Your task to perform on an android device: toggle javascript in the chrome app Image 0: 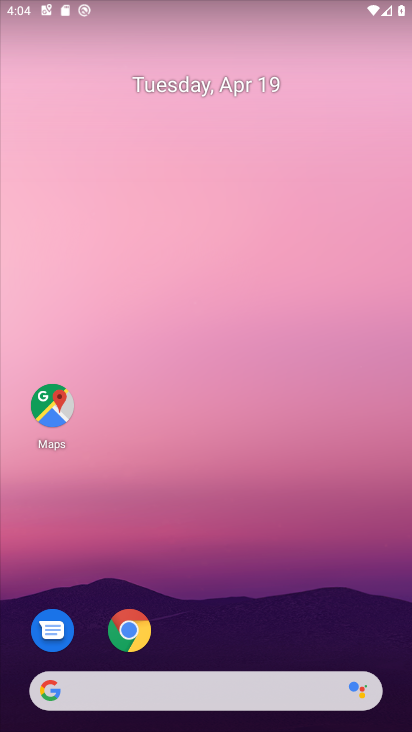
Step 0: click (131, 634)
Your task to perform on an android device: toggle javascript in the chrome app Image 1: 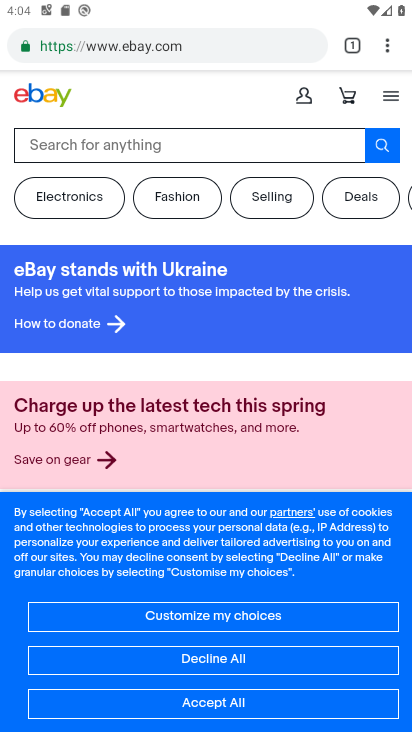
Step 1: drag from (389, 41) to (238, 601)
Your task to perform on an android device: toggle javascript in the chrome app Image 2: 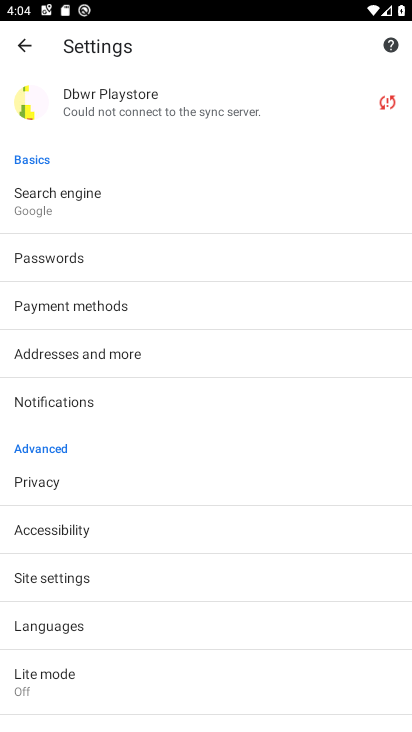
Step 2: drag from (179, 615) to (217, 191)
Your task to perform on an android device: toggle javascript in the chrome app Image 3: 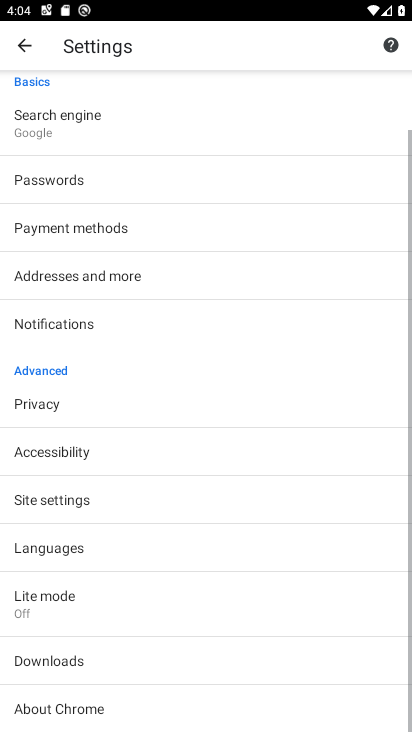
Step 3: drag from (143, 672) to (189, 534)
Your task to perform on an android device: toggle javascript in the chrome app Image 4: 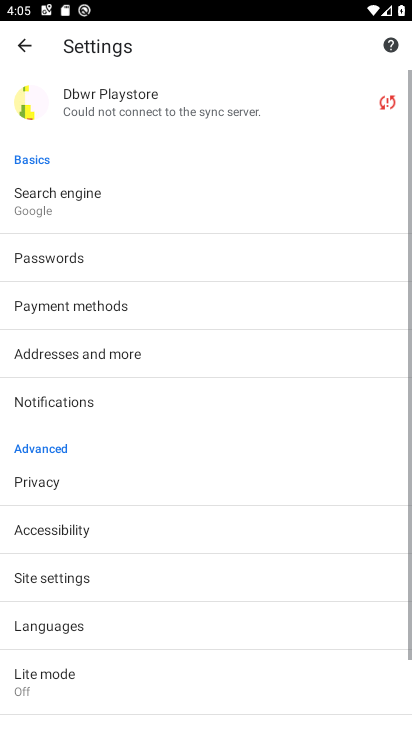
Step 4: click (76, 578)
Your task to perform on an android device: toggle javascript in the chrome app Image 5: 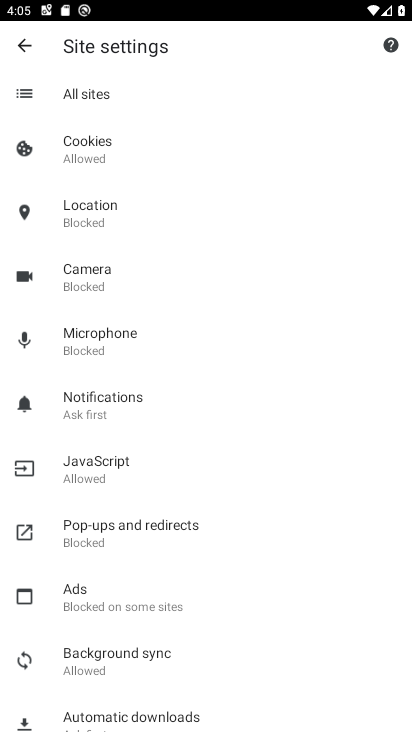
Step 5: drag from (214, 670) to (239, 435)
Your task to perform on an android device: toggle javascript in the chrome app Image 6: 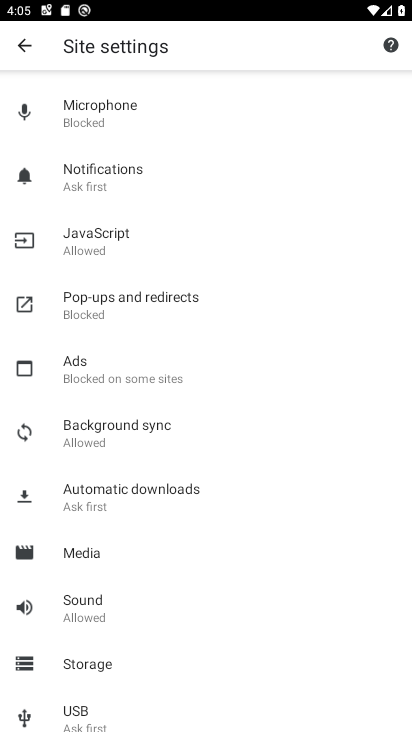
Step 6: click (134, 241)
Your task to perform on an android device: toggle javascript in the chrome app Image 7: 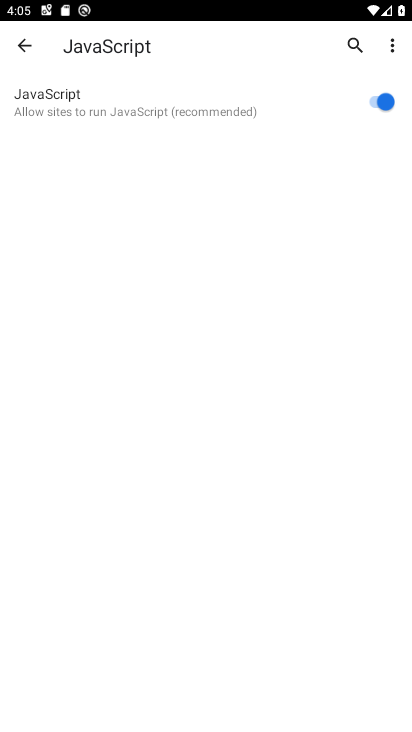
Step 7: click (385, 101)
Your task to perform on an android device: toggle javascript in the chrome app Image 8: 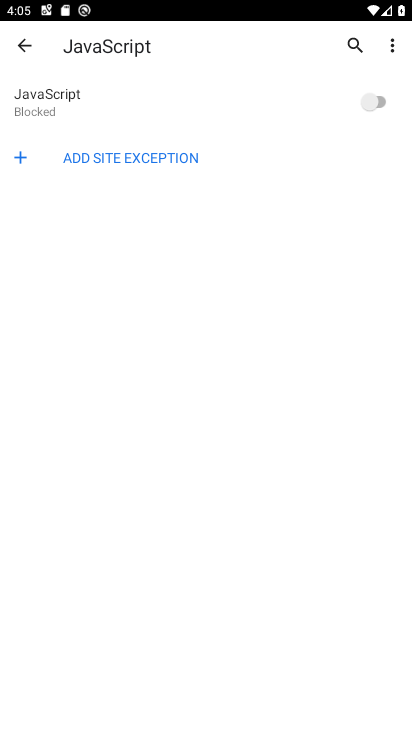
Step 8: task complete